Your task to perform on an android device: Open Google Image 0: 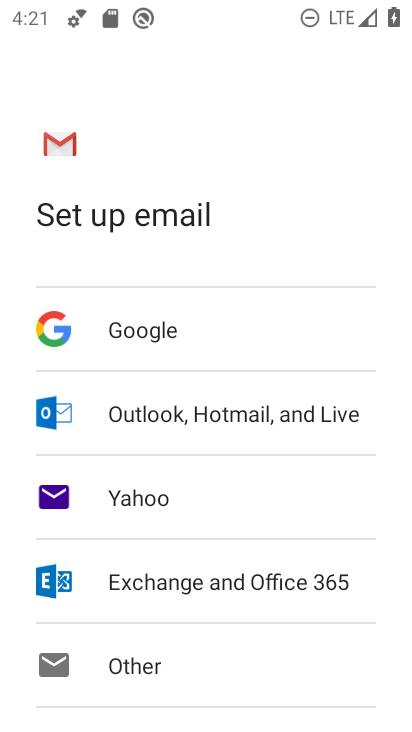
Step 0: press home button
Your task to perform on an android device: Open Google Image 1: 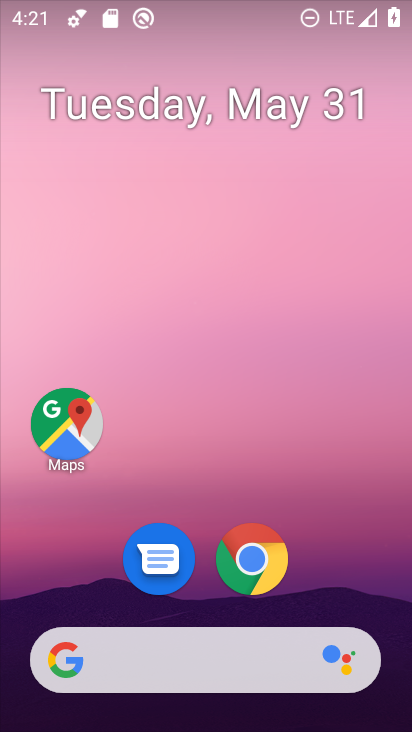
Step 1: drag from (199, 727) to (200, 41)
Your task to perform on an android device: Open Google Image 2: 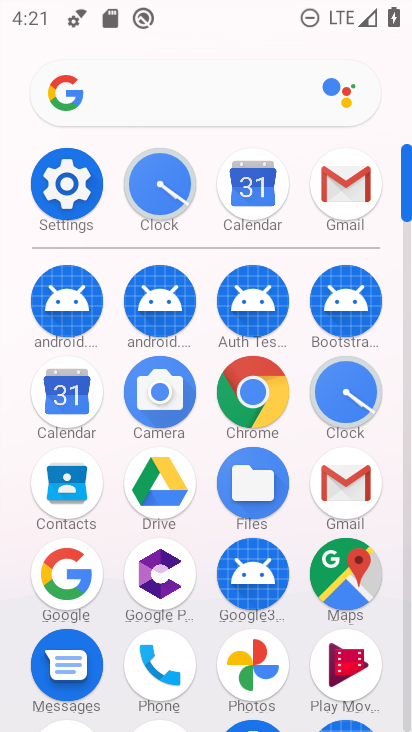
Step 2: click (70, 572)
Your task to perform on an android device: Open Google Image 3: 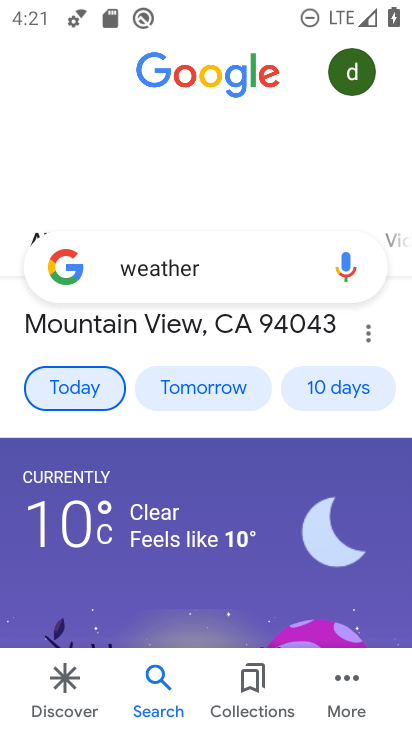
Step 3: task complete